Your task to perform on an android device: change the upload size in google photos Image 0: 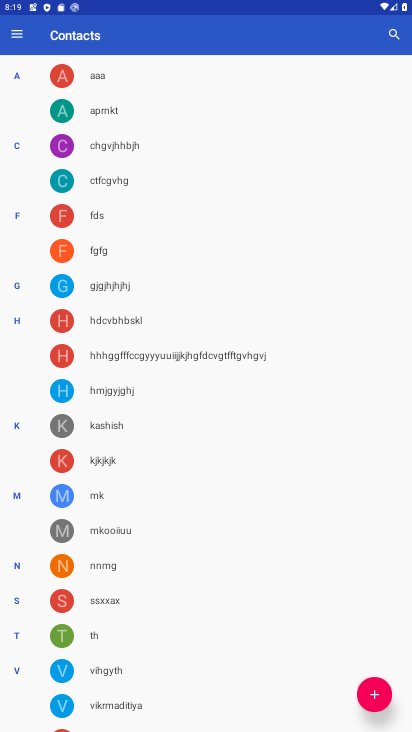
Step 0: press home button
Your task to perform on an android device: change the upload size in google photos Image 1: 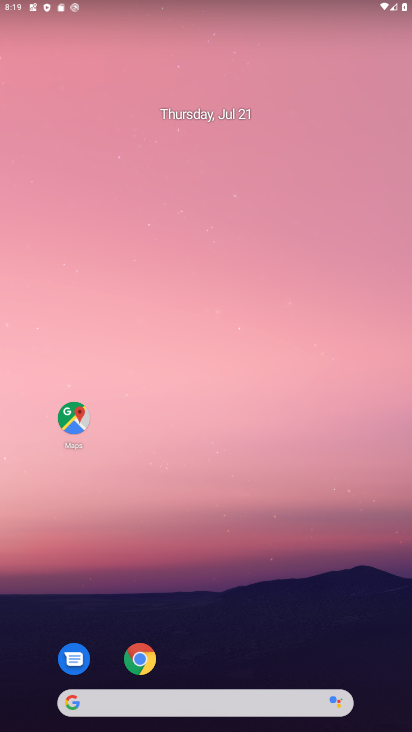
Step 1: drag from (207, 667) to (233, 65)
Your task to perform on an android device: change the upload size in google photos Image 2: 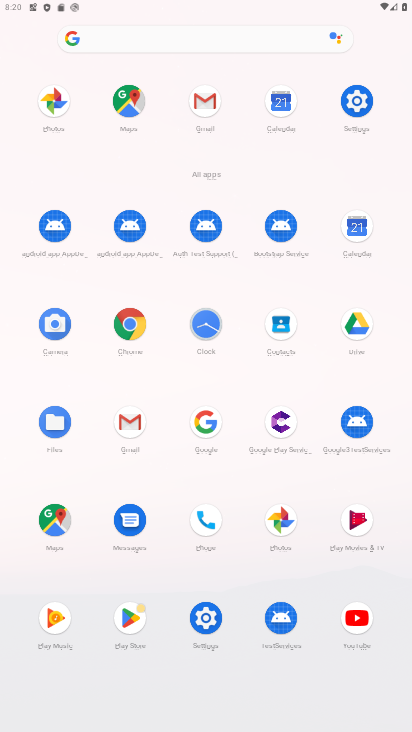
Step 2: click (278, 511)
Your task to perform on an android device: change the upload size in google photos Image 3: 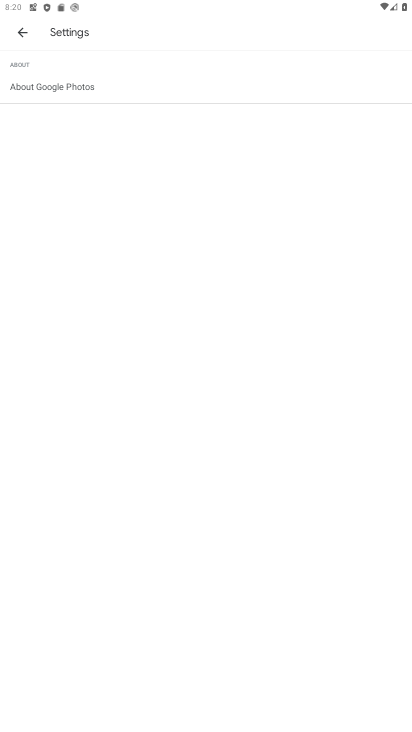
Step 3: click (18, 33)
Your task to perform on an android device: change the upload size in google photos Image 4: 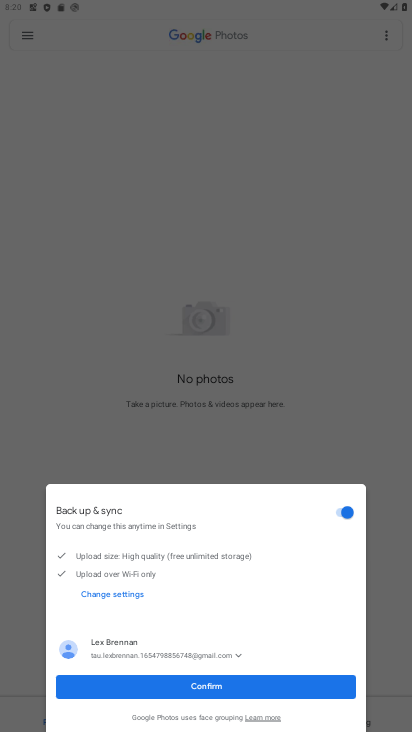
Step 4: click (216, 685)
Your task to perform on an android device: change the upload size in google photos Image 5: 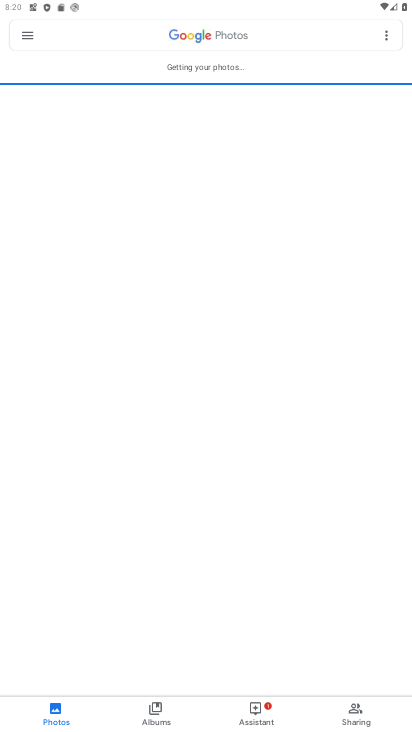
Step 5: click (20, 33)
Your task to perform on an android device: change the upload size in google photos Image 6: 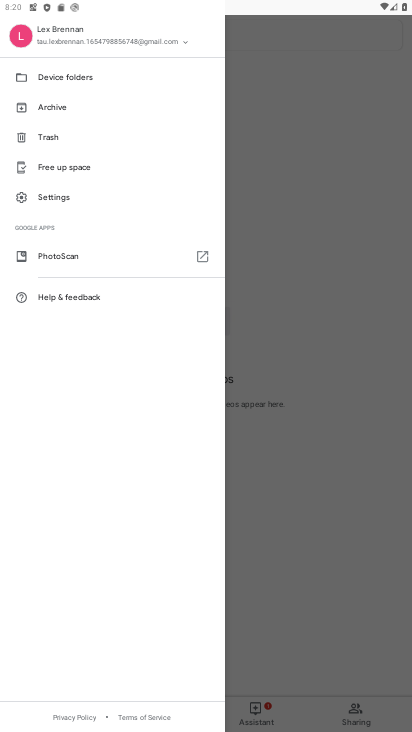
Step 6: click (58, 190)
Your task to perform on an android device: change the upload size in google photos Image 7: 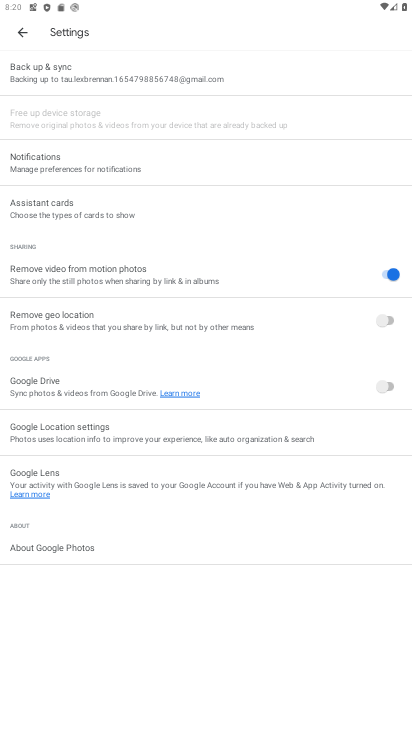
Step 7: click (76, 73)
Your task to perform on an android device: change the upload size in google photos Image 8: 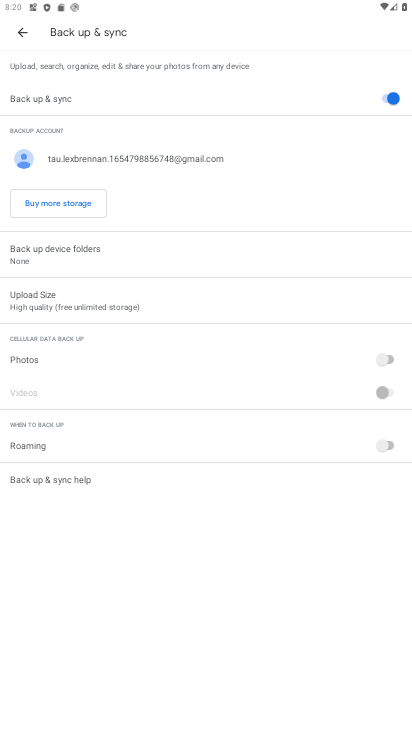
Step 8: click (68, 298)
Your task to perform on an android device: change the upload size in google photos Image 9: 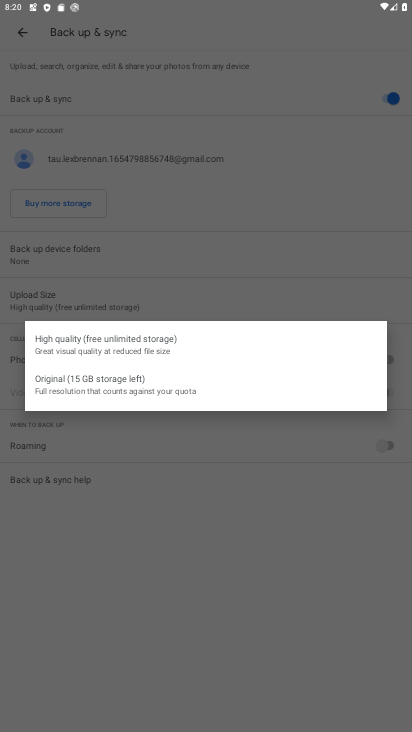
Step 9: click (133, 380)
Your task to perform on an android device: change the upload size in google photos Image 10: 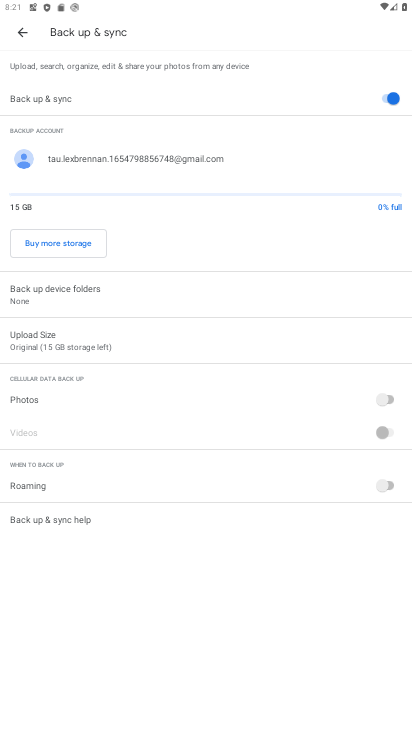
Step 10: task complete